Your task to perform on an android device: Open Google Maps Image 0: 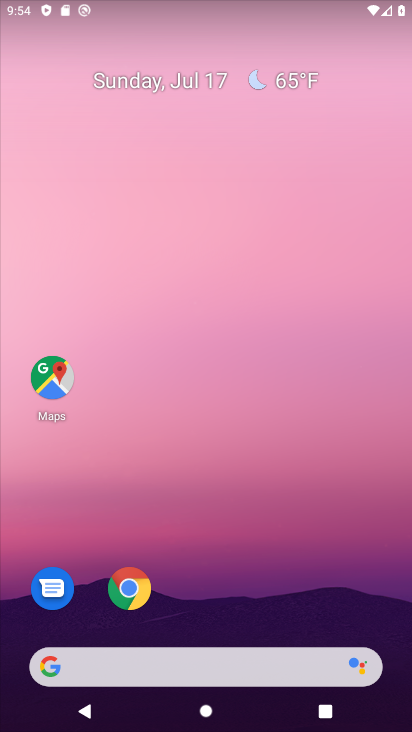
Step 0: click (48, 378)
Your task to perform on an android device: Open Google Maps Image 1: 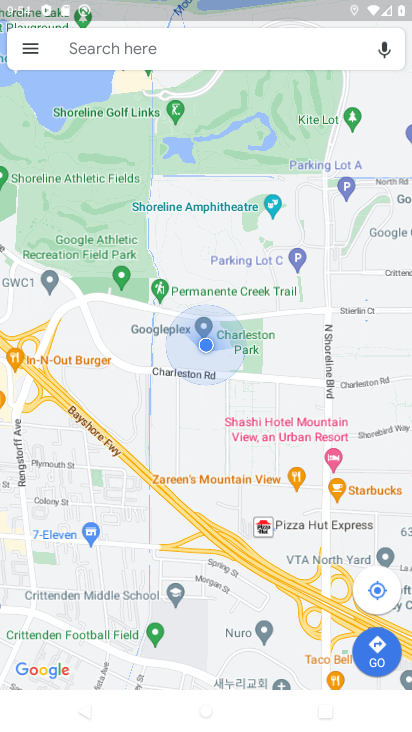
Step 1: task complete